Your task to perform on an android device: Set the phone to "Do not disturb". Image 0: 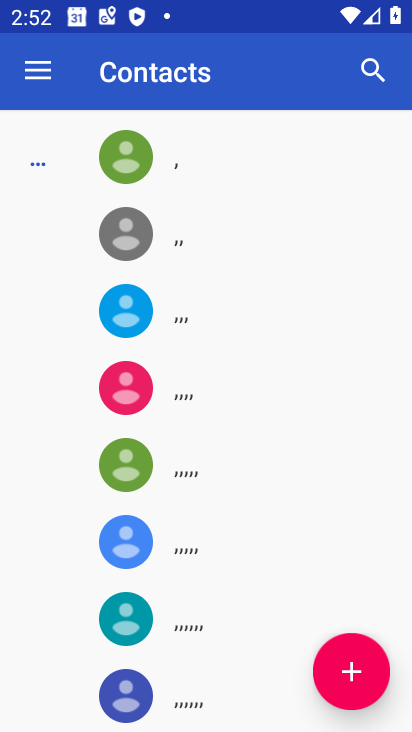
Step 0: press home button
Your task to perform on an android device: Set the phone to "Do not disturb". Image 1: 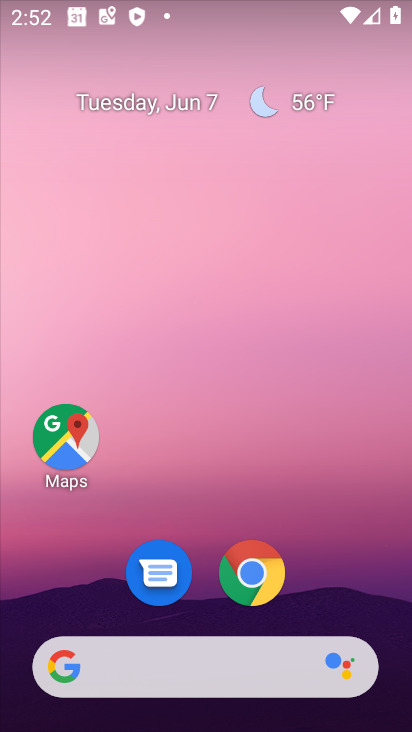
Step 1: drag from (344, 557) to (311, 4)
Your task to perform on an android device: Set the phone to "Do not disturb". Image 2: 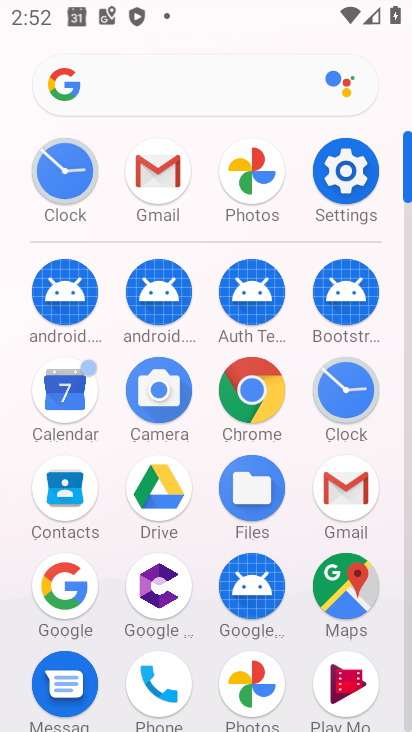
Step 2: click (342, 186)
Your task to perform on an android device: Set the phone to "Do not disturb". Image 3: 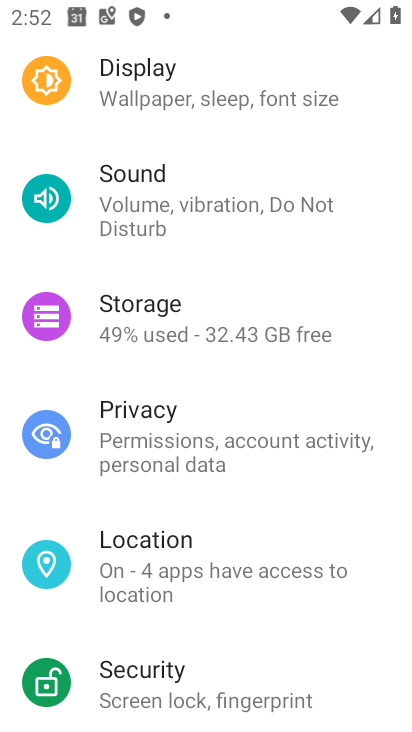
Step 3: click (244, 220)
Your task to perform on an android device: Set the phone to "Do not disturb". Image 4: 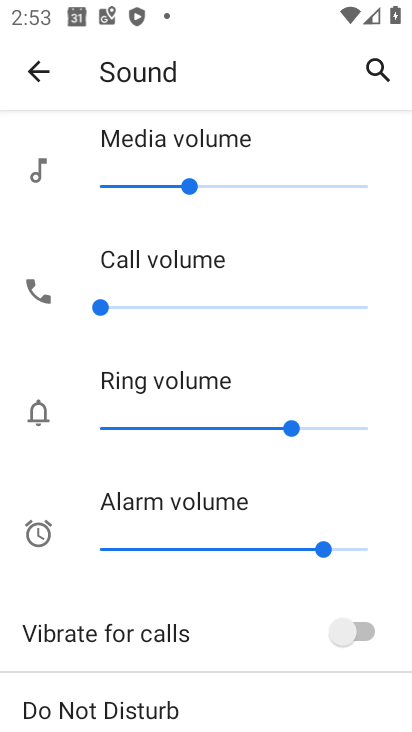
Step 4: drag from (236, 666) to (290, 237)
Your task to perform on an android device: Set the phone to "Do not disturb". Image 5: 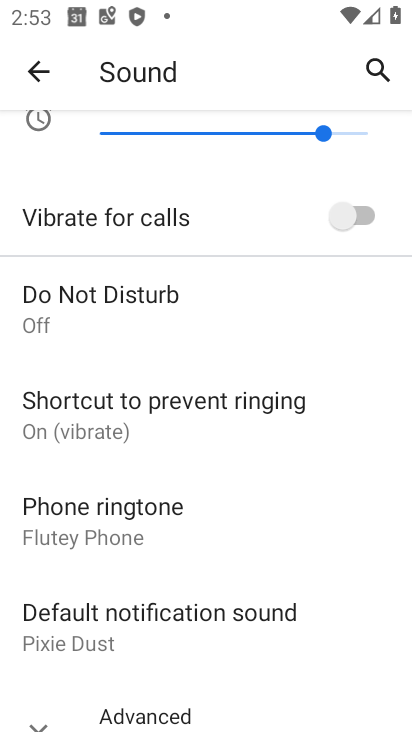
Step 5: click (126, 322)
Your task to perform on an android device: Set the phone to "Do not disturb". Image 6: 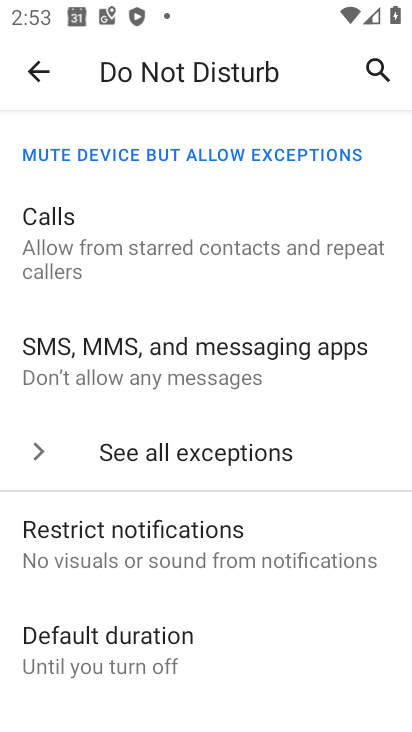
Step 6: drag from (164, 650) to (178, 107)
Your task to perform on an android device: Set the phone to "Do not disturb". Image 7: 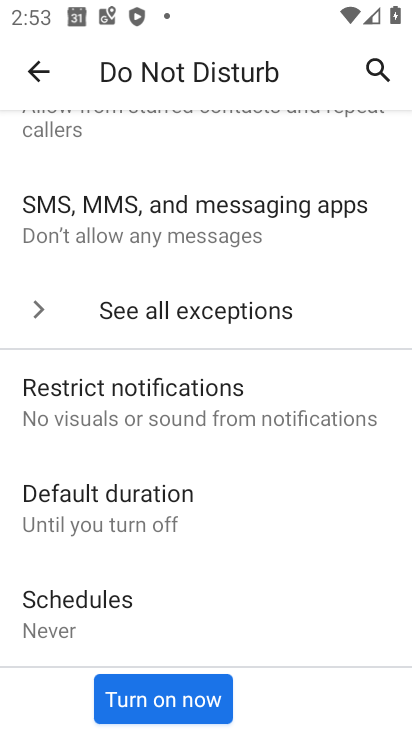
Step 7: click (201, 719)
Your task to perform on an android device: Set the phone to "Do not disturb". Image 8: 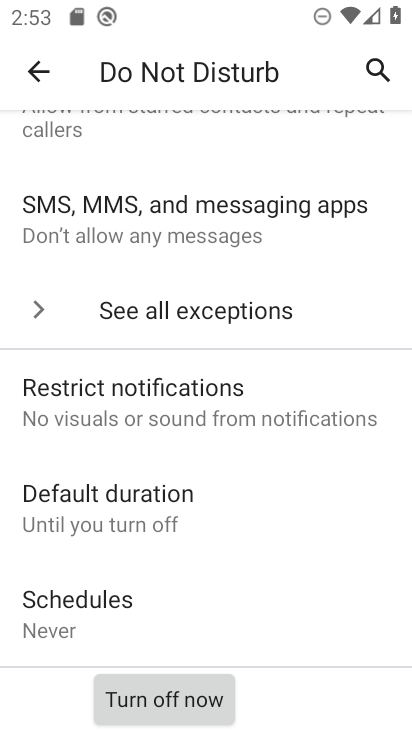
Step 8: task complete